Your task to perform on an android device: Go to ESPN.com Image 0: 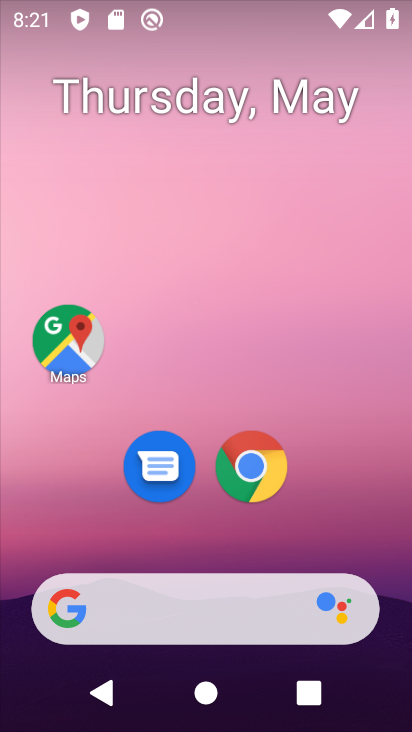
Step 0: click (269, 469)
Your task to perform on an android device: Go to ESPN.com Image 1: 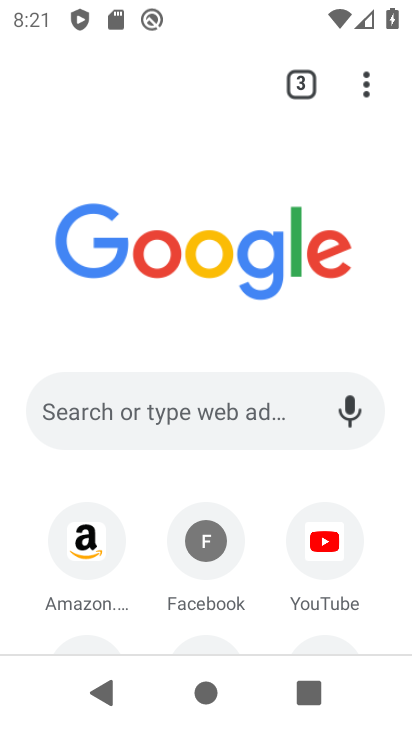
Step 1: click (262, 416)
Your task to perform on an android device: Go to ESPN.com Image 2: 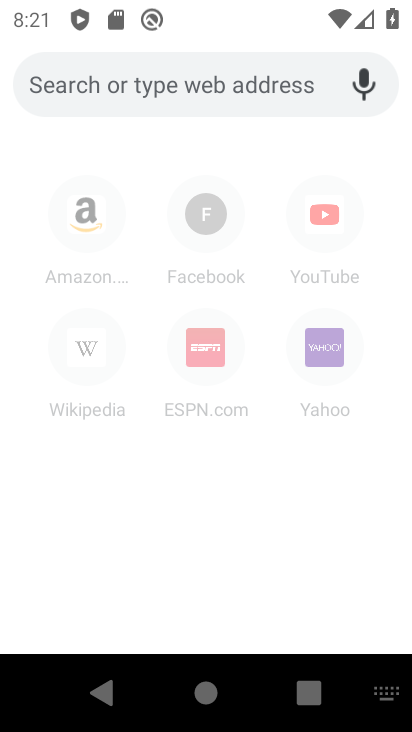
Step 2: type "espn"
Your task to perform on an android device: Go to ESPN.com Image 3: 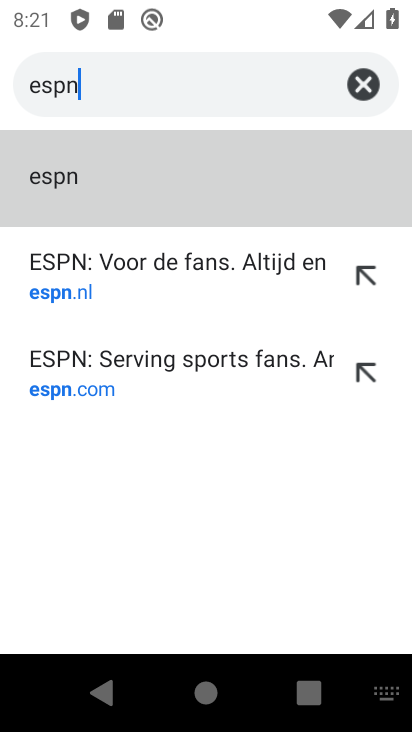
Step 3: click (69, 389)
Your task to perform on an android device: Go to ESPN.com Image 4: 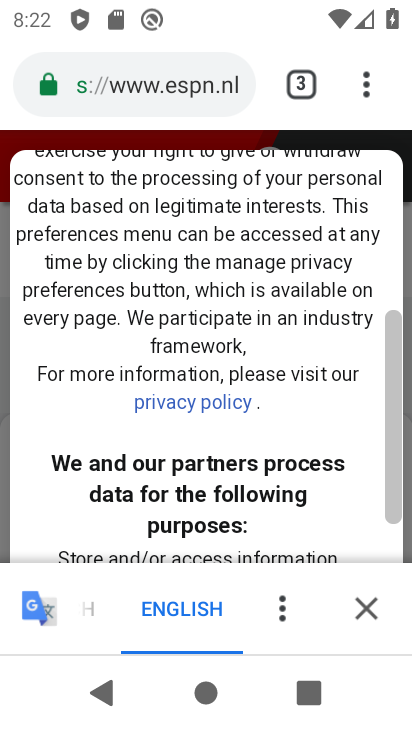
Step 4: task complete